Your task to perform on an android device: Open calendar and show me the fourth week of next month Image 0: 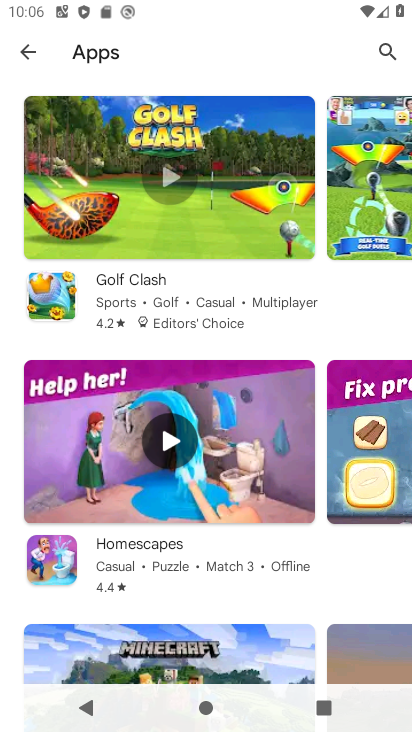
Step 0: press home button
Your task to perform on an android device: Open calendar and show me the fourth week of next month Image 1: 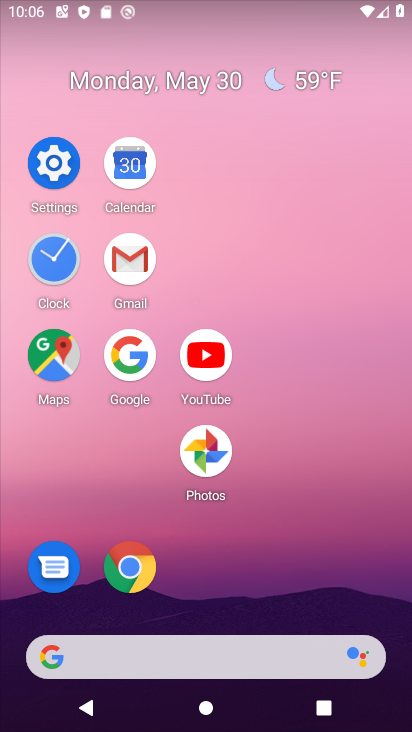
Step 1: click (135, 174)
Your task to perform on an android device: Open calendar and show me the fourth week of next month Image 2: 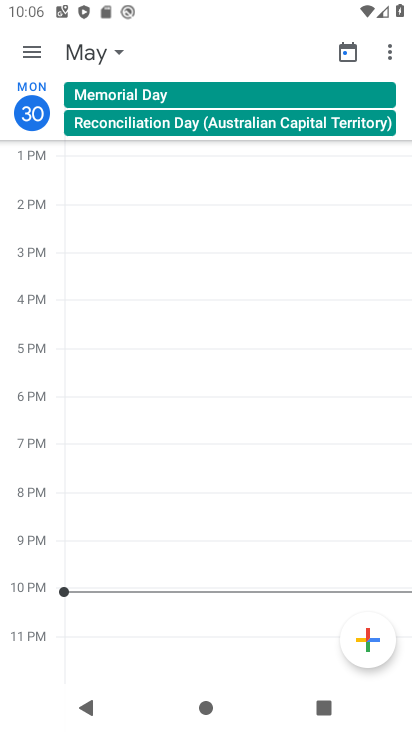
Step 2: click (117, 56)
Your task to perform on an android device: Open calendar and show me the fourth week of next month Image 3: 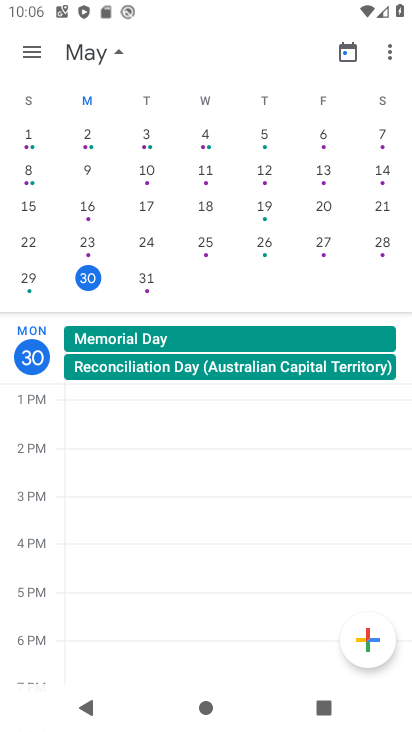
Step 3: drag from (376, 198) to (3, 86)
Your task to perform on an android device: Open calendar and show me the fourth week of next month Image 4: 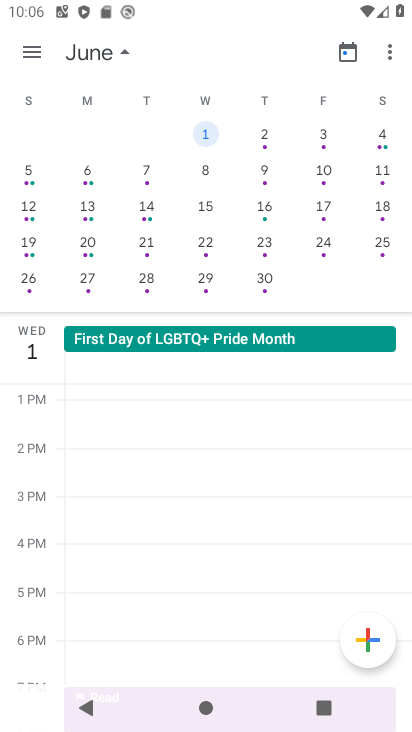
Step 4: click (27, 56)
Your task to perform on an android device: Open calendar and show me the fourth week of next month Image 5: 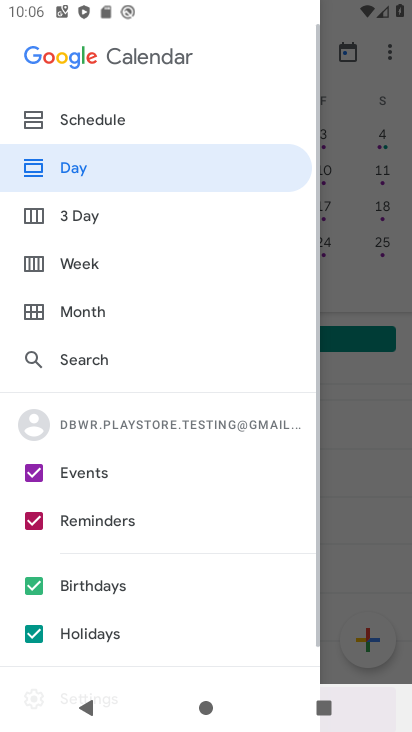
Step 5: click (147, 262)
Your task to perform on an android device: Open calendar and show me the fourth week of next month Image 6: 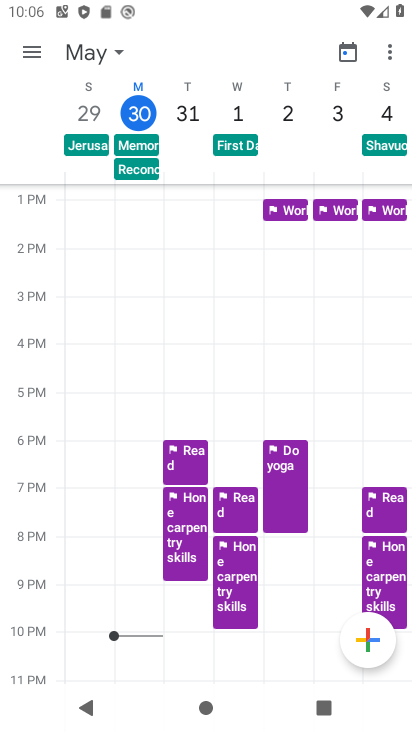
Step 6: task complete